Your task to perform on an android device: Open CNN.com Image 0: 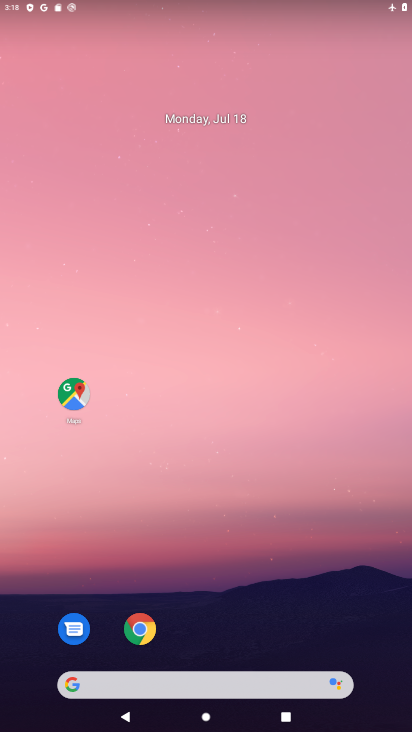
Step 0: click (145, 630)
Your task to perform on an android device: Open CNN.com Image 1: 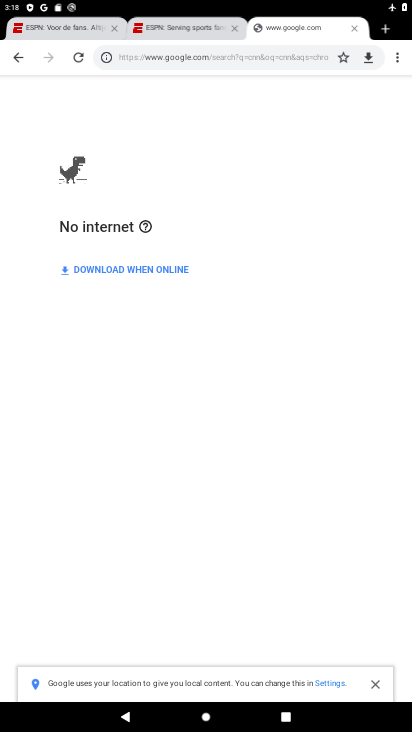
Step 1: task complete